Your task to perform on an android device: Turn off the flashlight Image 0: 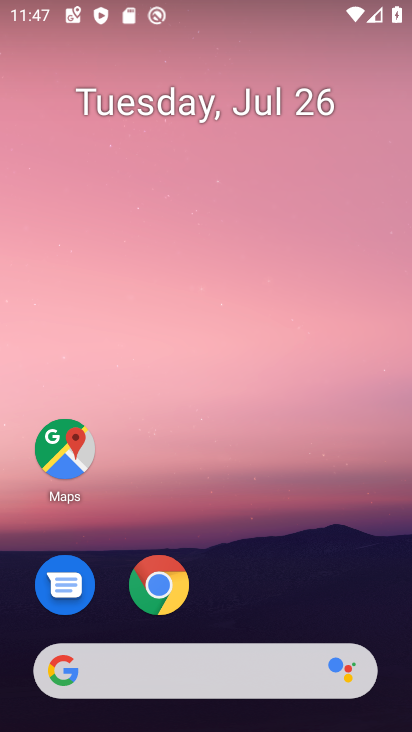
Step 0: drag from (283, 539) to (325, 92)
Your task to perform on an android device: Turn off the flashlight Image 1: 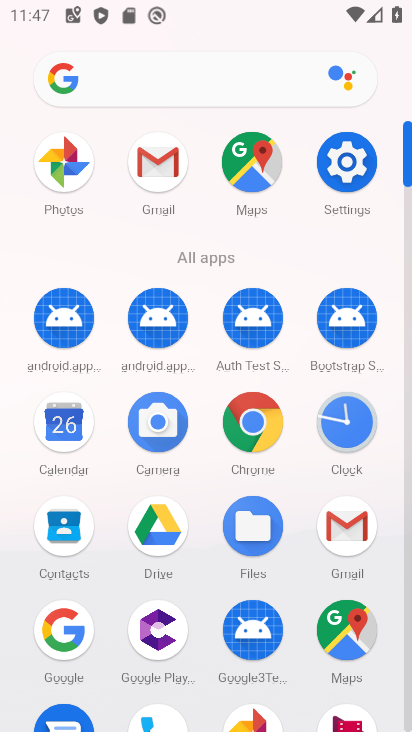
Step 1: click (343, 154)
Your task to perform on an android device: Turn off the flashlight Image 2: 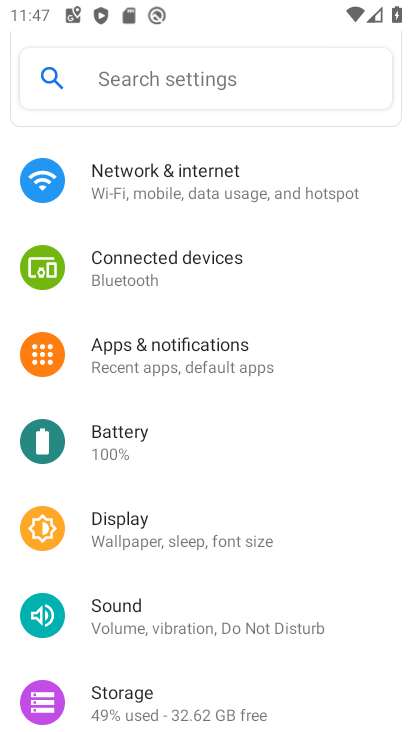
Step 2: click (229, 79)
Your task to perform on an android device: Turn off the flashlight Image 3: 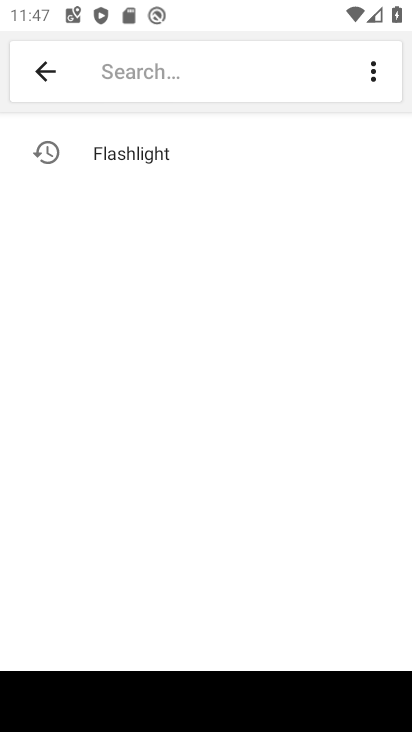
Step 3: type "Flashlight"
Your task to perform on an android device: Turn off the flashlight Image 4: 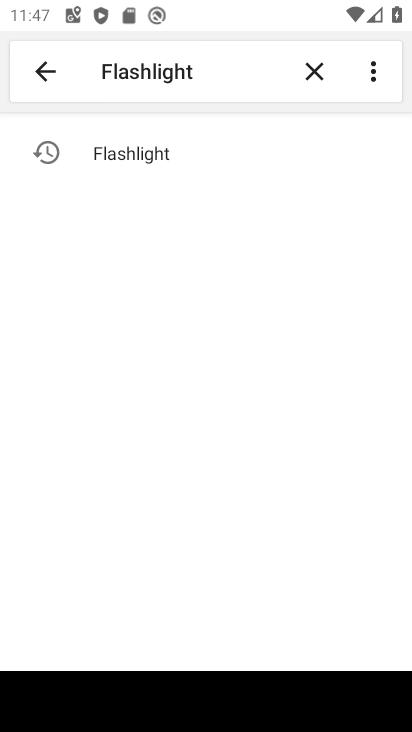
Step 4: click (149, 150)
Your task to perform on an android device: Turn off the flashlight Image 5: 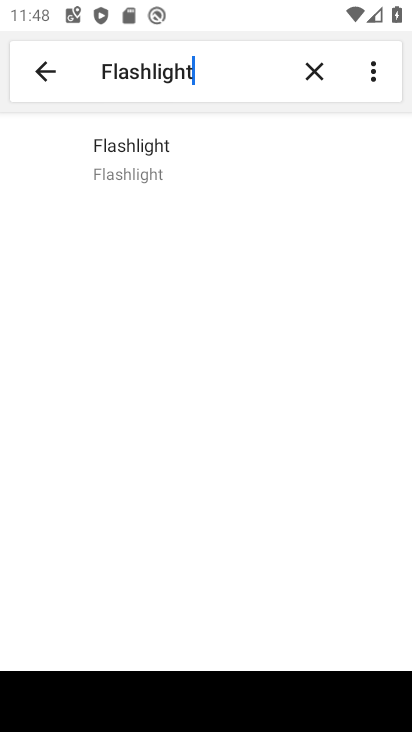
Step 5: task complete